Your task to perform on an android device: Search for a new desk on IKEA. Image 0: 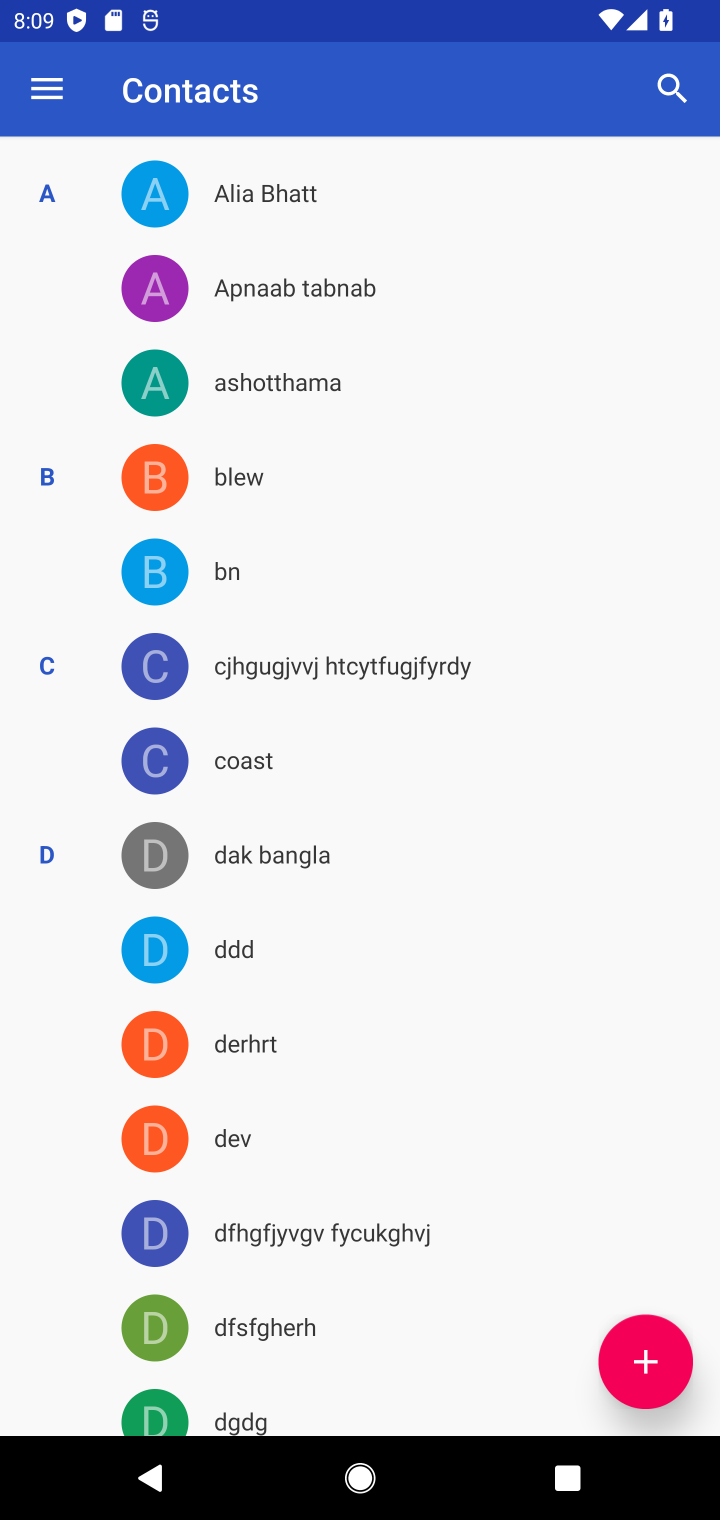
Step 0: press home button
Your task to perform on an android device: Search for a new desk on IKEA. Image 1: 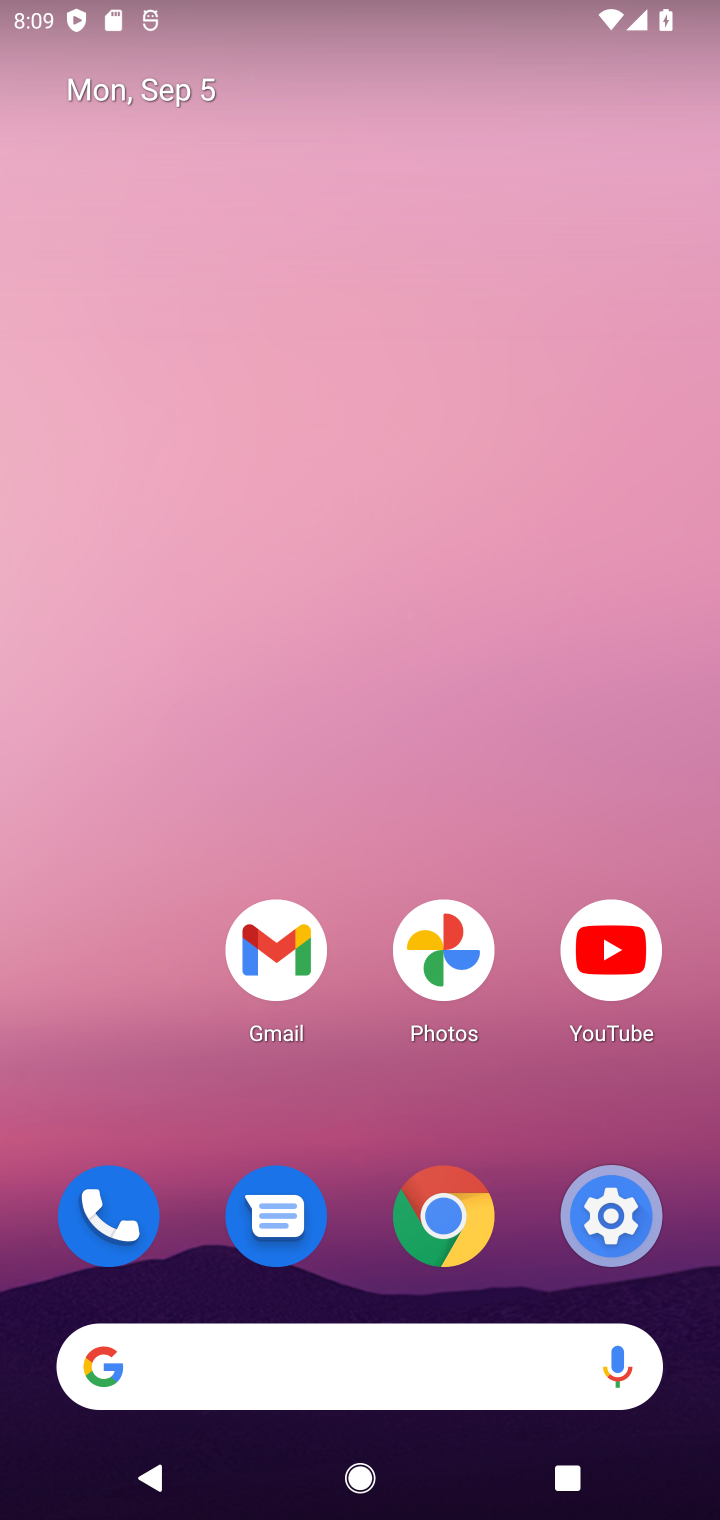
Step 1: click (407, 1353)
Your task to perform on an android device: Search for a new desk on IKEA. Image 2: 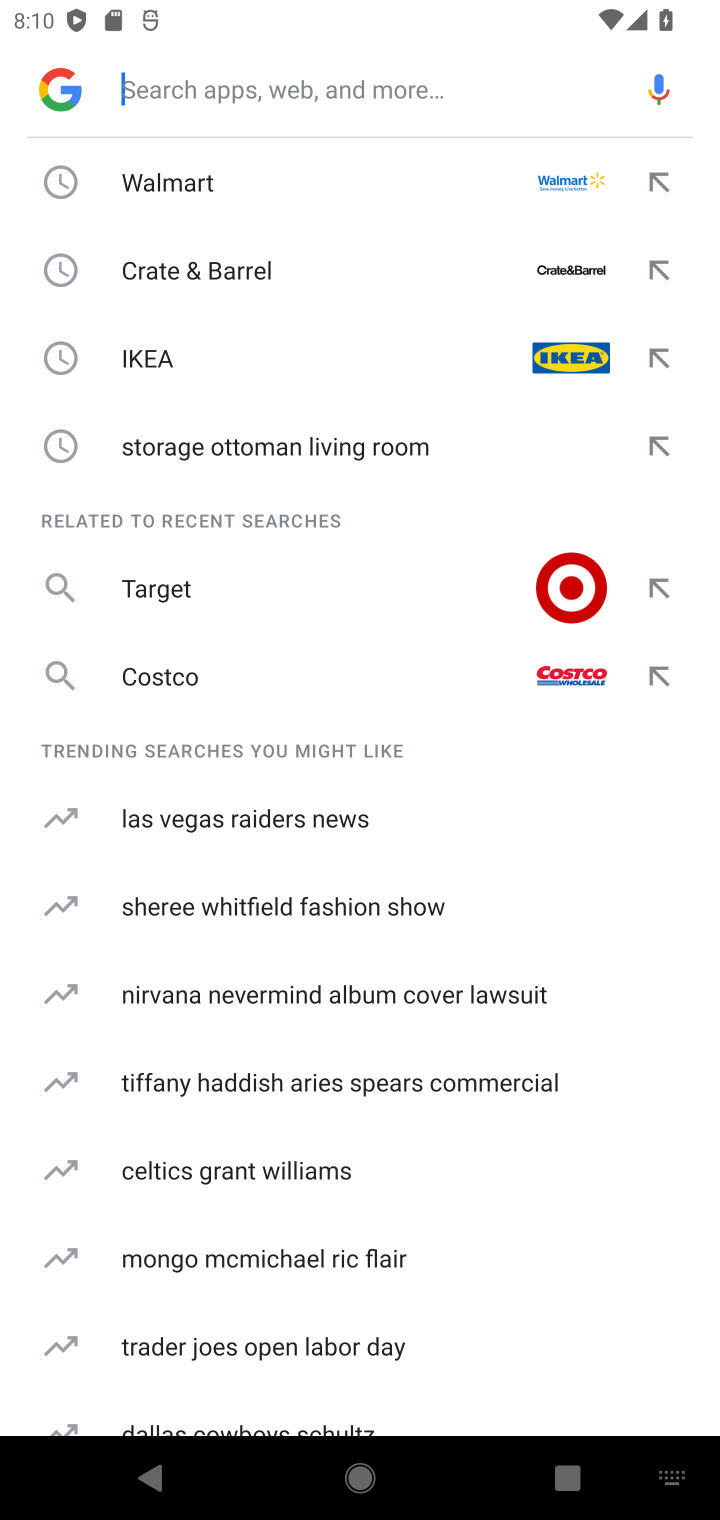
Step 2: type "new desk on IKEA"
Your task to perform on an android device: Search for a new desk on IKEA. Image 3: 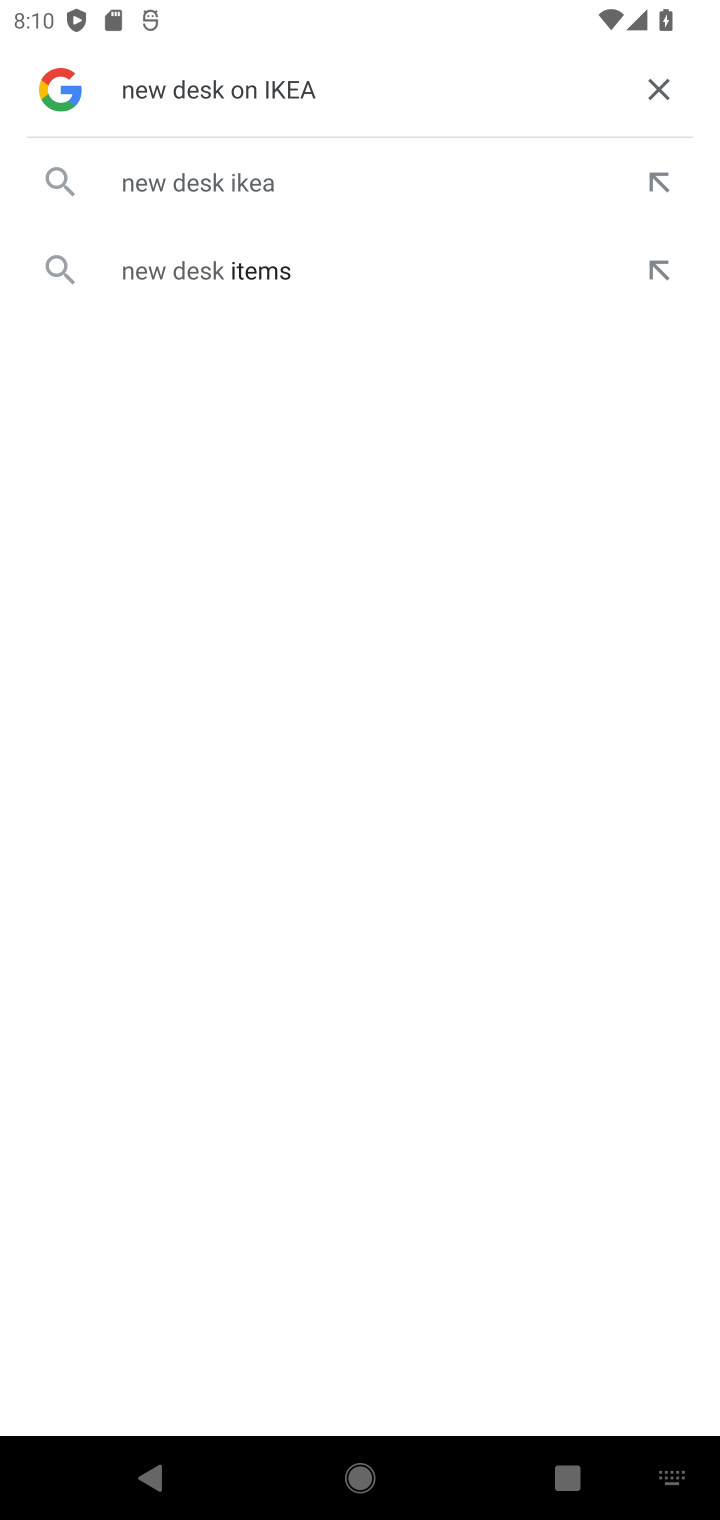
Step 3: click (311, 167)
Your task to perform on an android device: Search for a new desk on IKEA. Image 4: 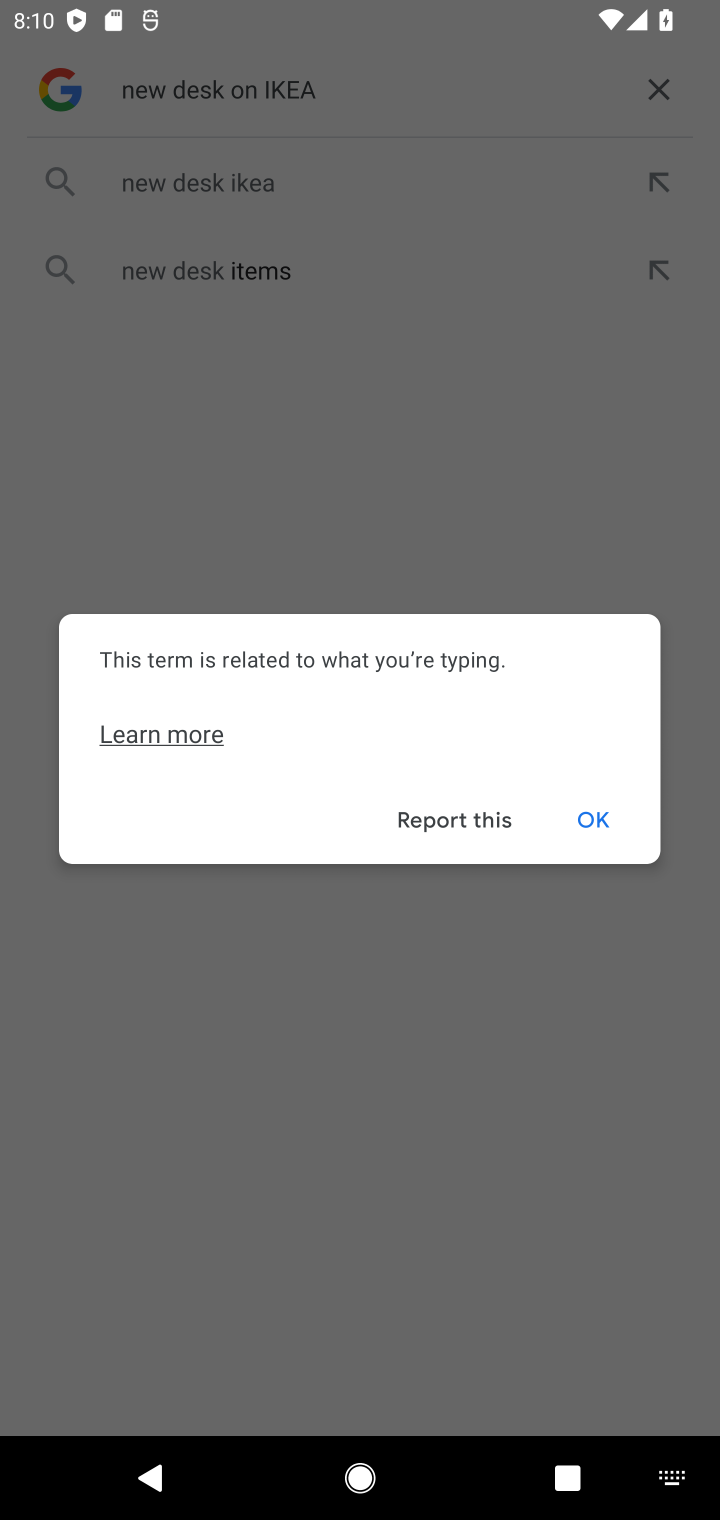
Step 4: click (583, 821)
Your task to perform on an android device: Search for a new desk on IKEA. Image 5: 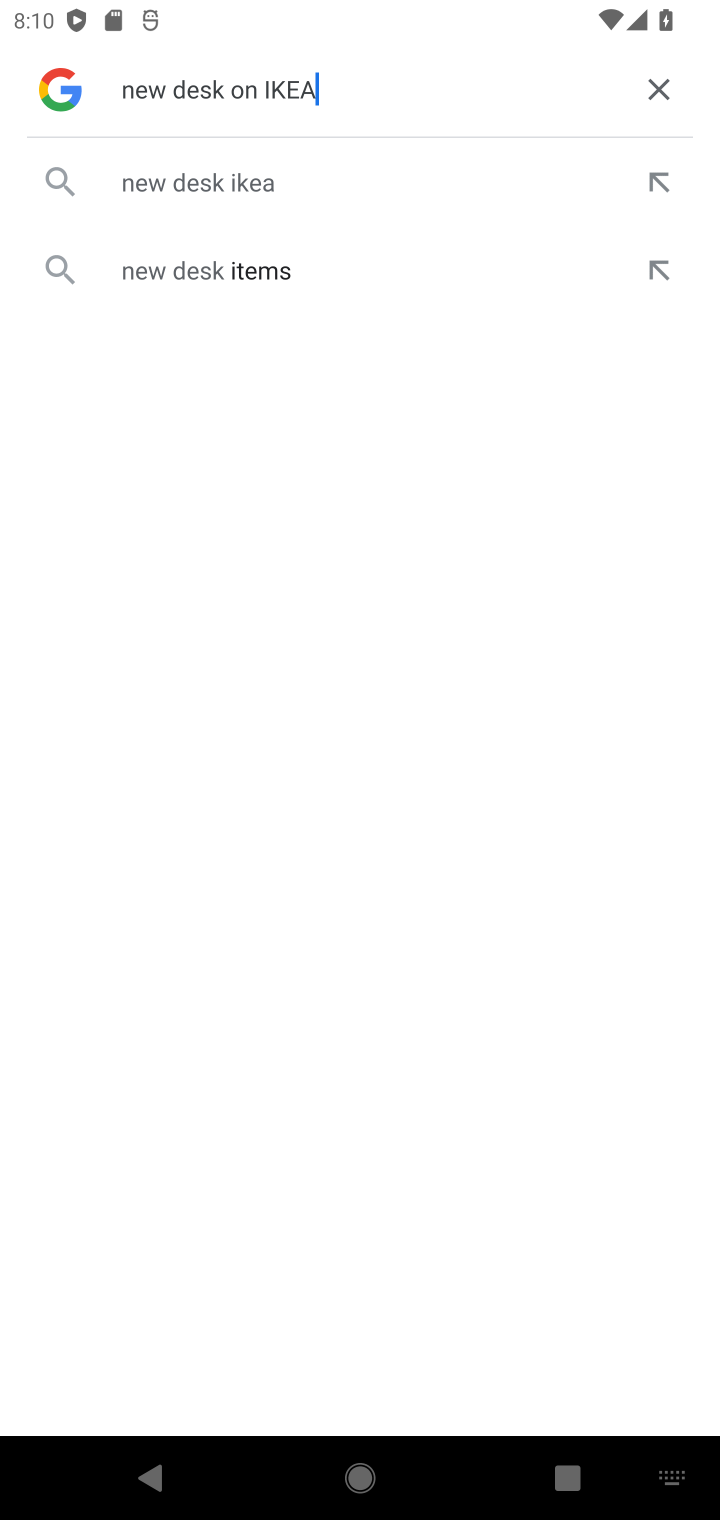
Step 5: click (181, 223)
Your task to perform on an android device: Search for a new desk on IKEA. Image 6: 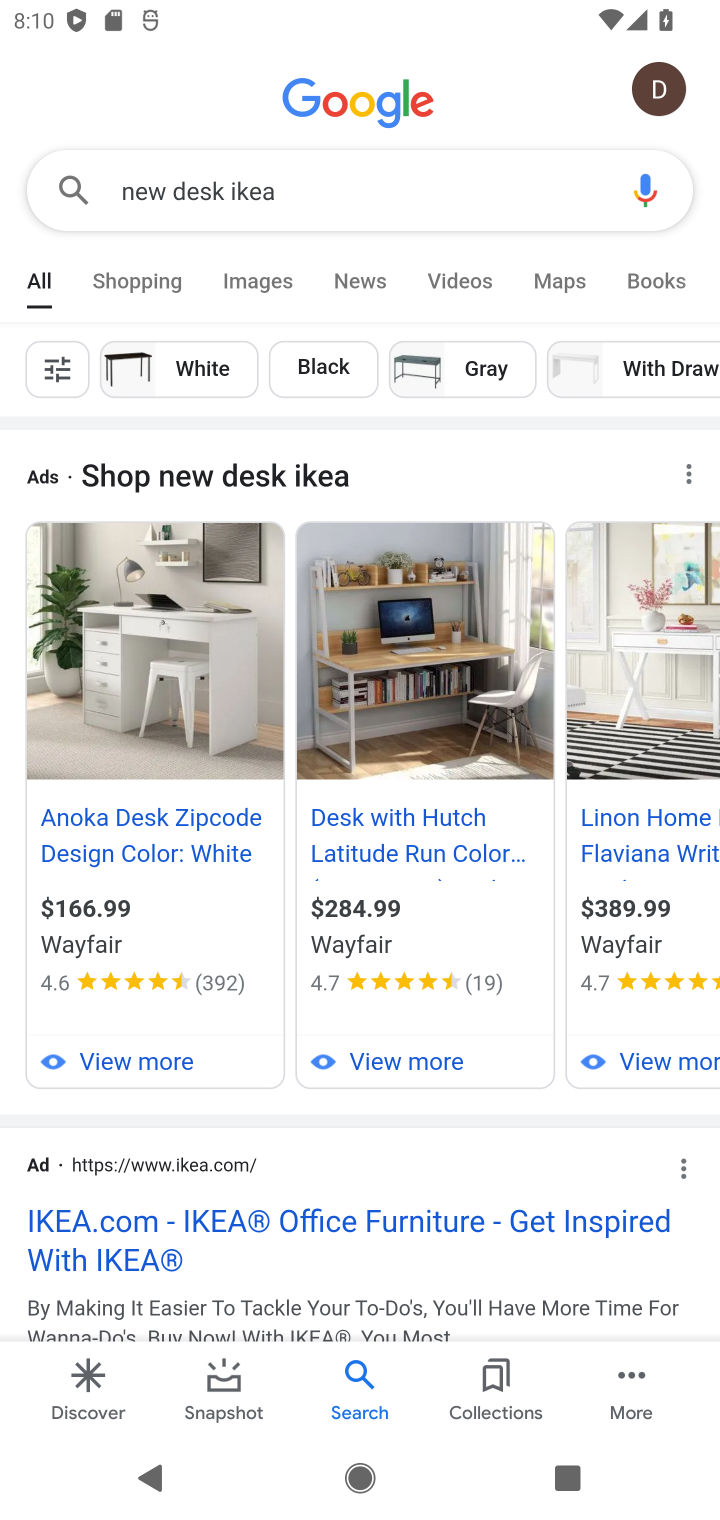
Step 6: task complete